Your task to perform on an android device: Check the weather Image 0: 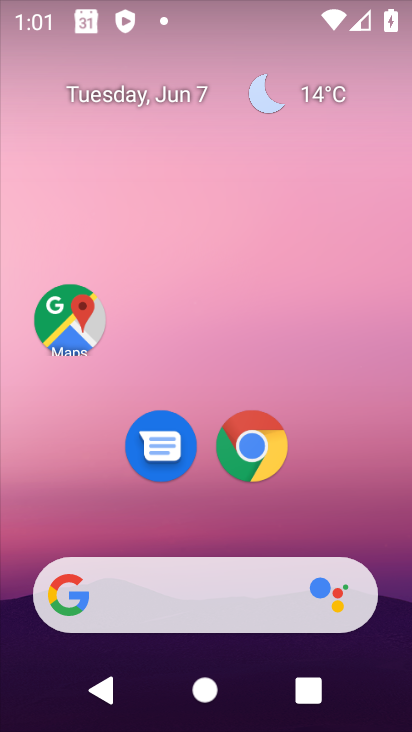
Step 0: drag from (364, 526) to (296, 22)
Your task to perform on an android device: Check the weather Image 1: 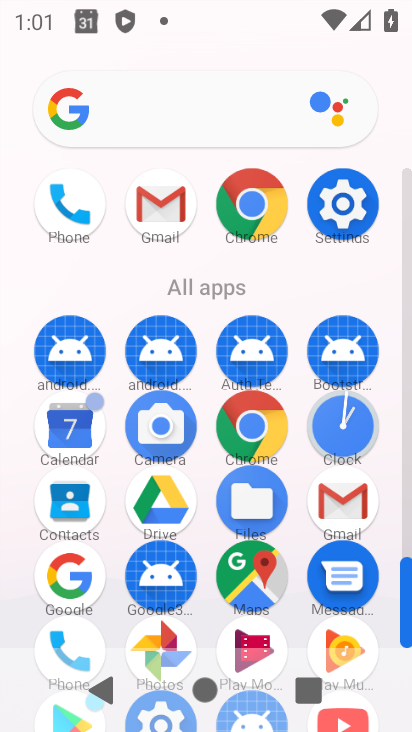
Step 1: drag from (6, 632) to (17, 346)
Your task to perform on an android device: Check the weather Image 2: 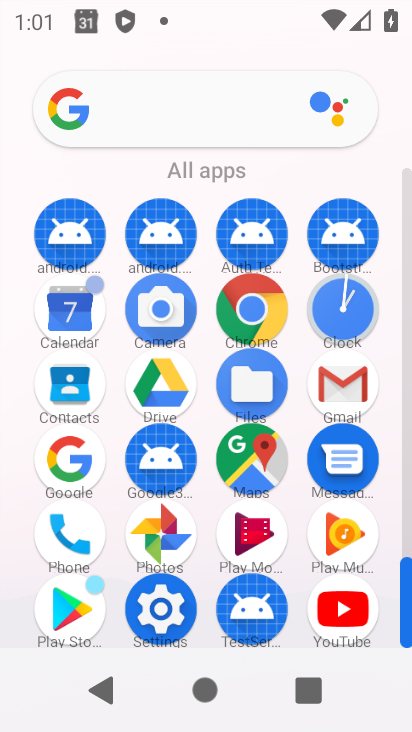
Step 2: click (249, 306)
Your task to perform on an android device: Check the weather Image 3: 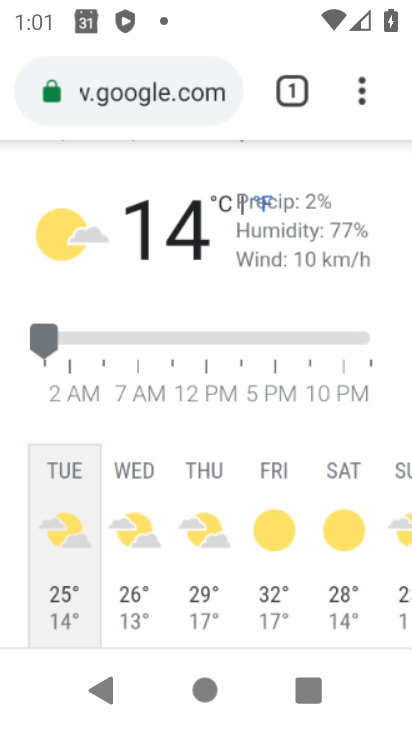
Step 3: click (200, 90)
Your task to perform on an android device: Check the weather Image 4: 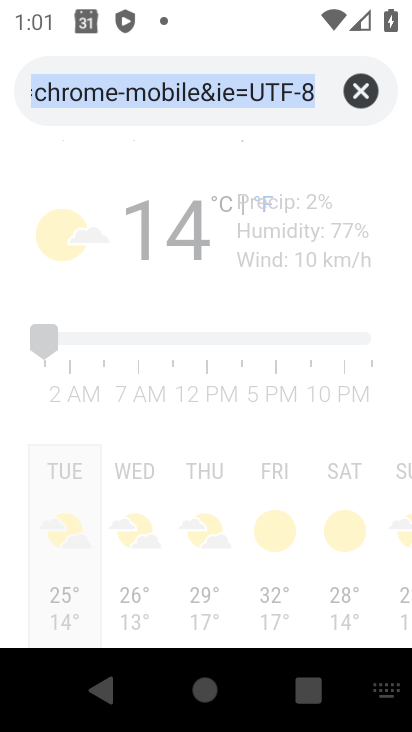
Step 4: click (353, 88)
Your task to perform on an android device: Check the weather Image 5: 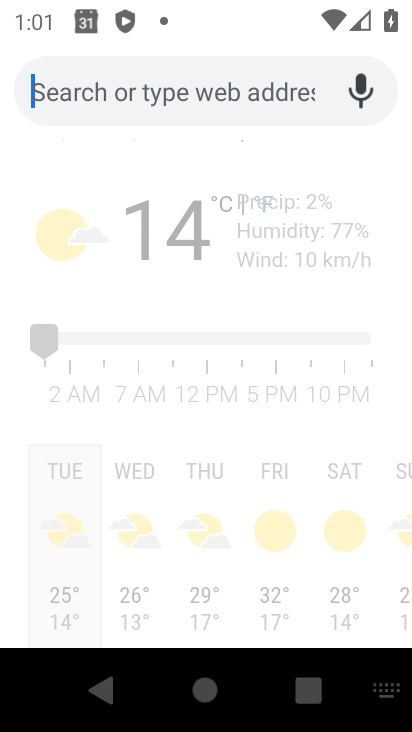
Step 5: type "Check the weather"
Your task to perform on an android device: Check the weather Image 6: 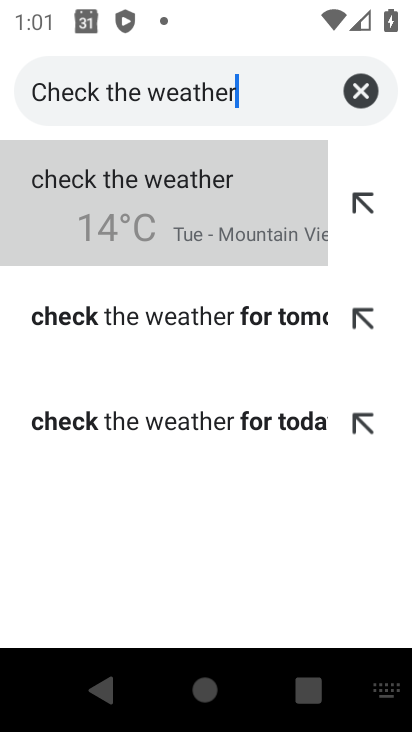
Step 6: type ""
Your task to perform on an android device: Check the weather Image 7: 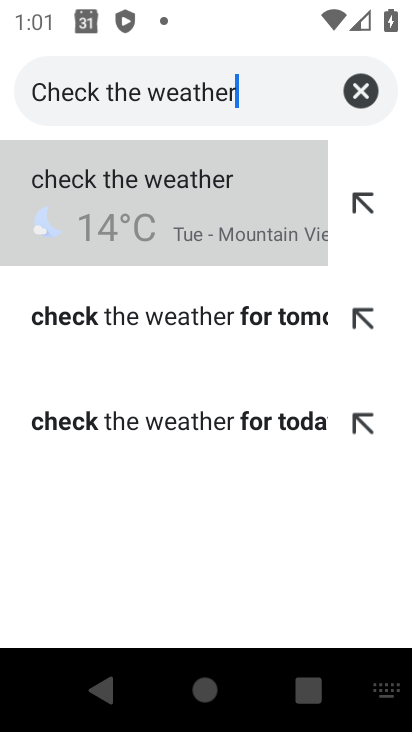
Step 7: click (171, 179)
Your task to perform on an android device: Check the weather Image 8: 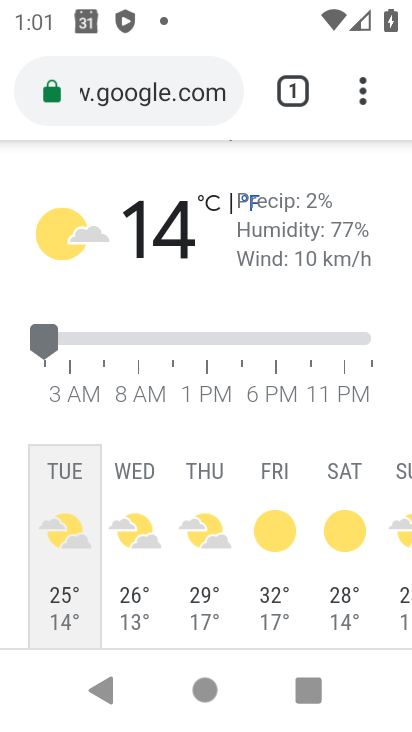
Step 8: task complete